Your task to perform on an android device: choose inbox layout in the gmail app Image 0: 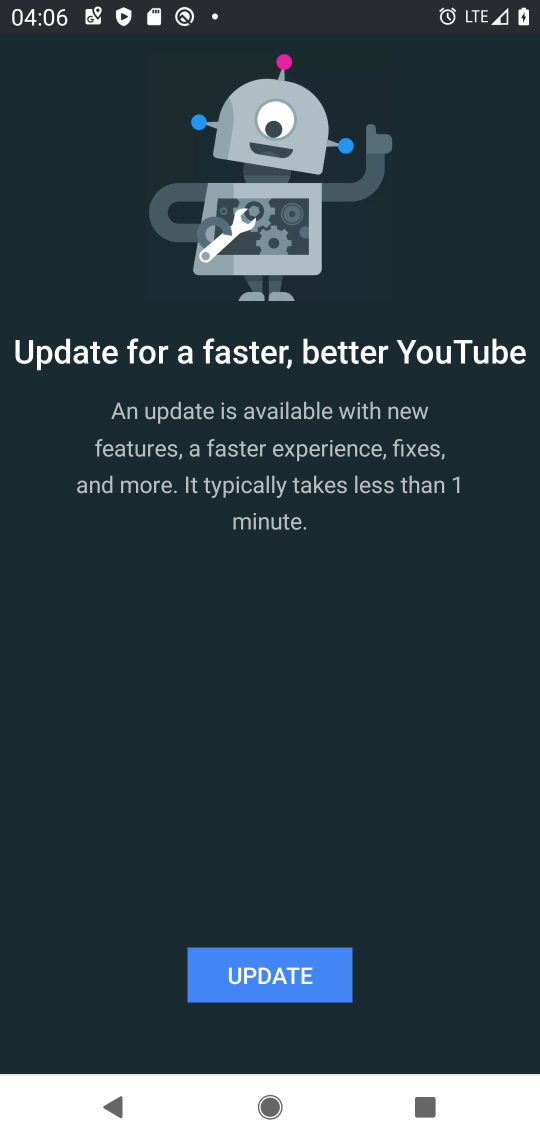
Step 0: press back button
Your task to perform on an android device: choose inbox layout in the gmail app Image 1: 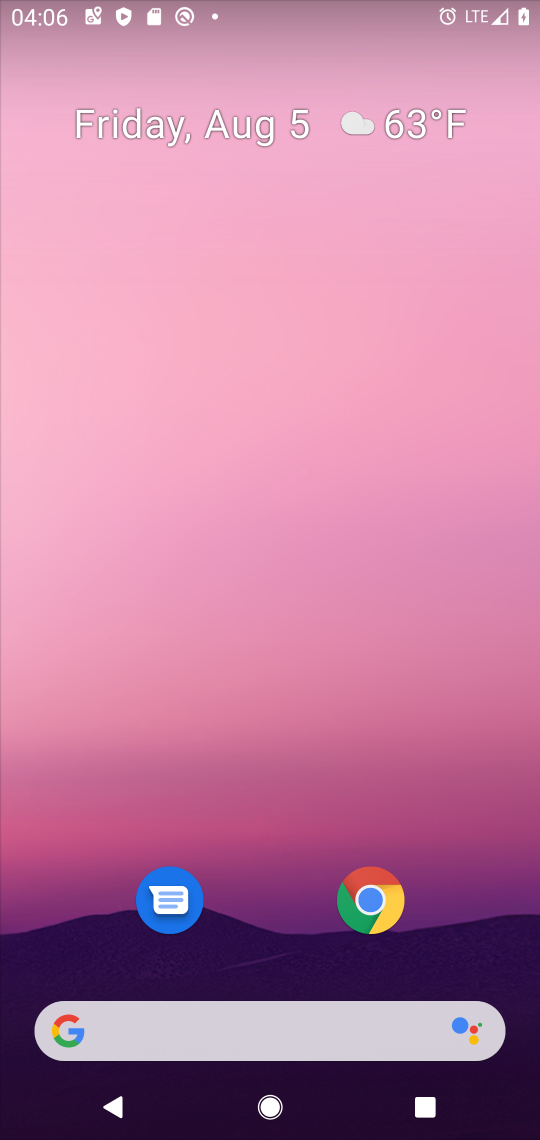
Step 1: drag from (220, 940) to (280, 4)
Your task to perform on an android device: choose inbox layout in the gmail app Image 2: 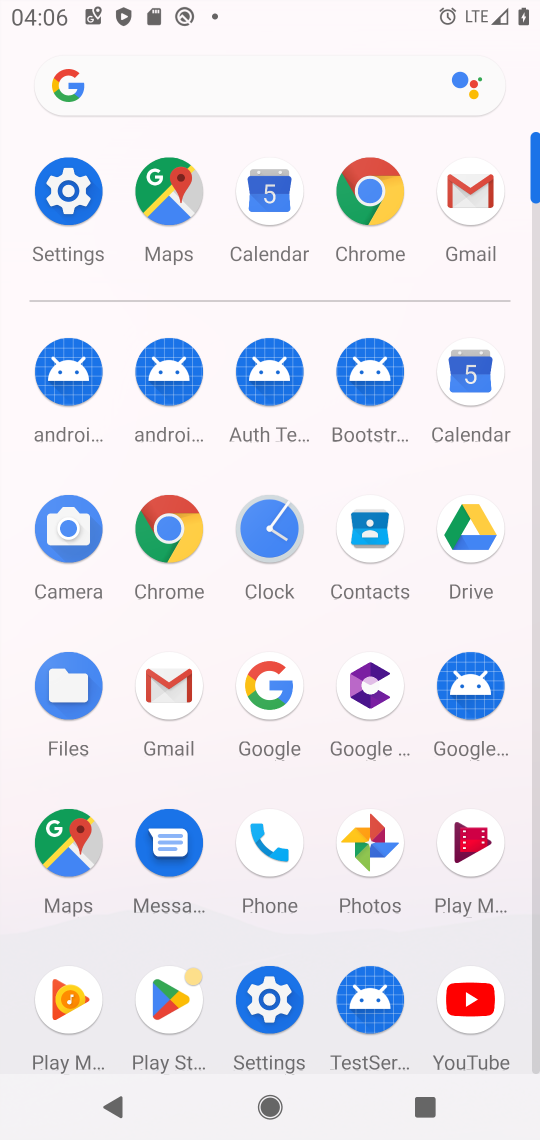
Step 2: click (456, 201)
Your task to perform on an android device: choose inbox layout in the gmail app Image 3: 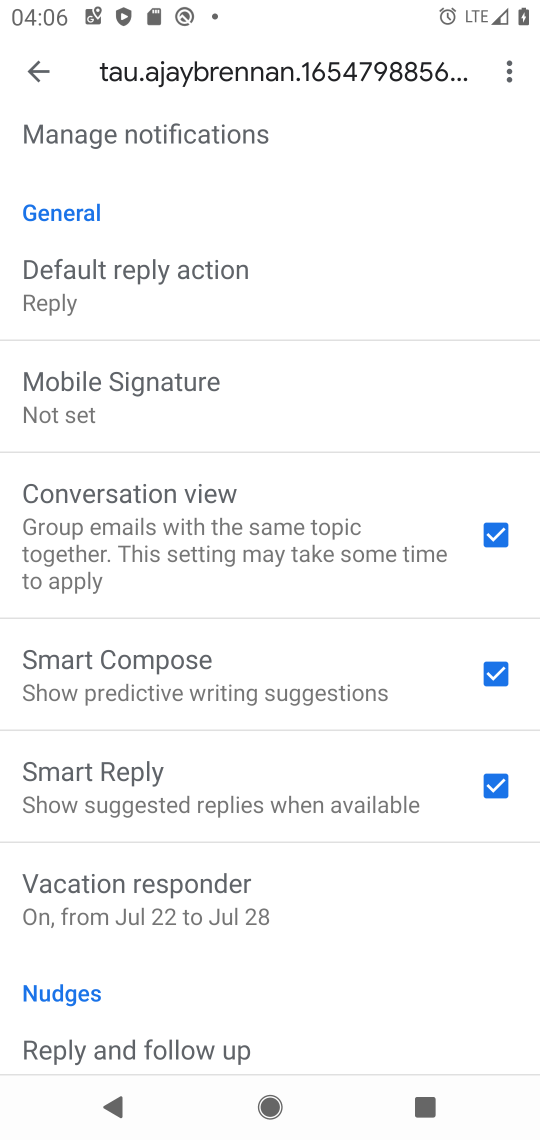
Step 3: drag from (195, 323) to (183, 1132)
Your task to perform on an android device: choose inbox layout in the gmail app Image 4: 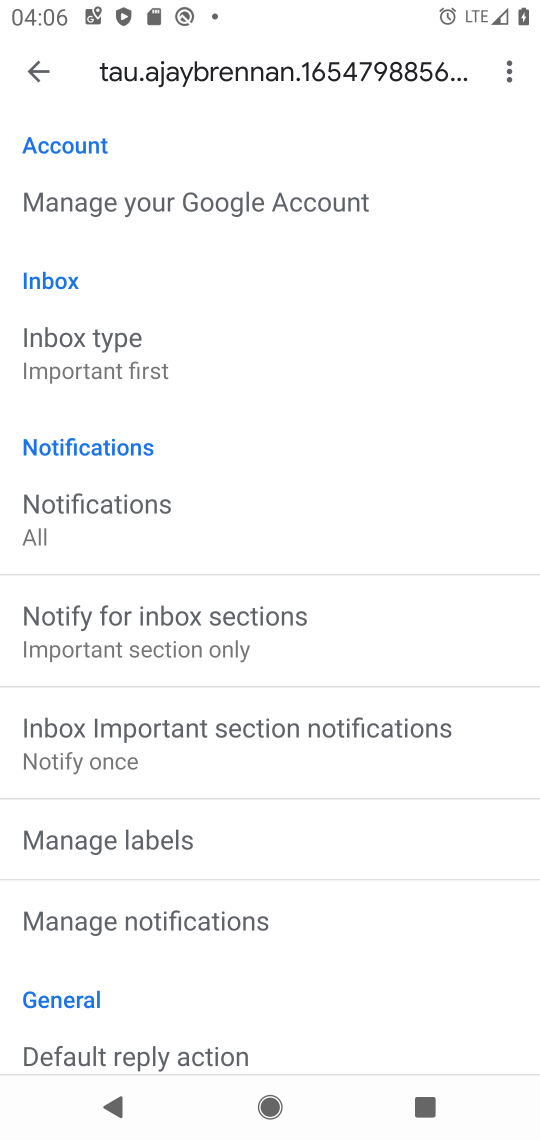
Step 4: click (220, 355)
Your task to perform on an android device: choose inbox layout in the gmail app Image 5: 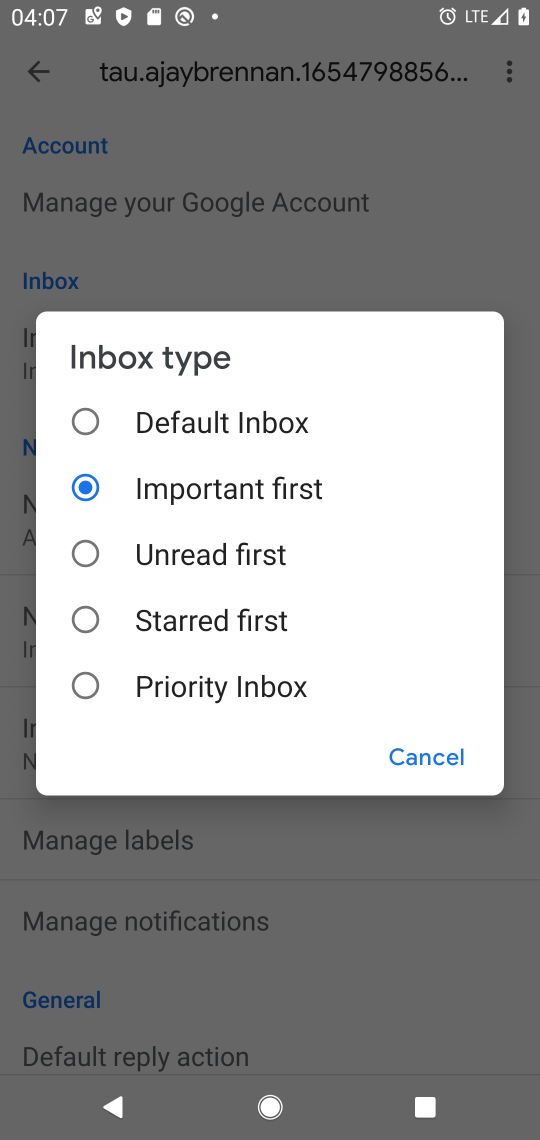
Step 5: click (121, 417)
Your task to perform on an android device: choose inbox layout in the gmail app Image 6: 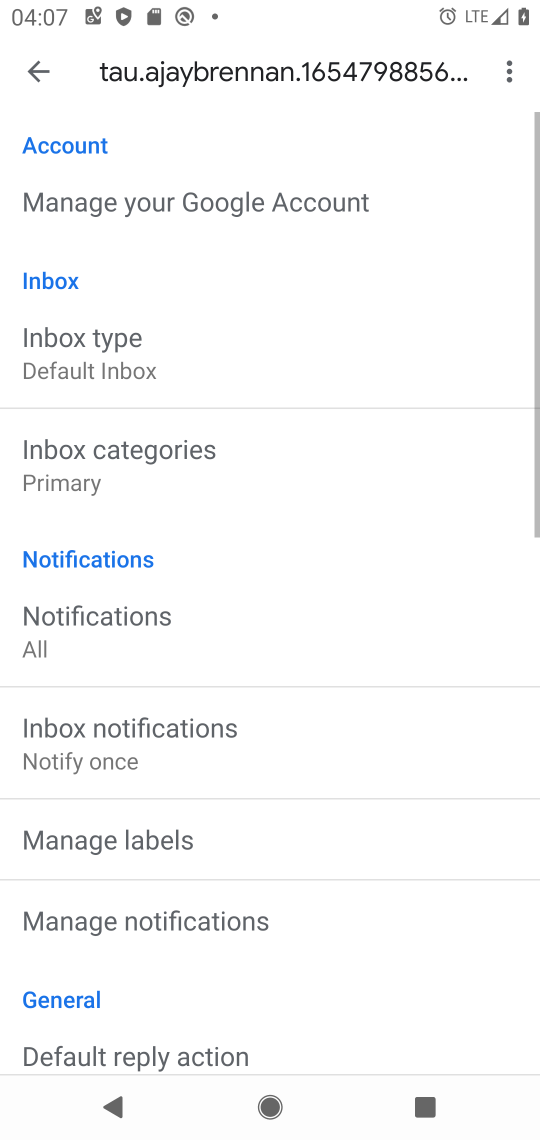
Step 6: task complete